Your task to perform on an android device: turn off airplane mode Image 0: 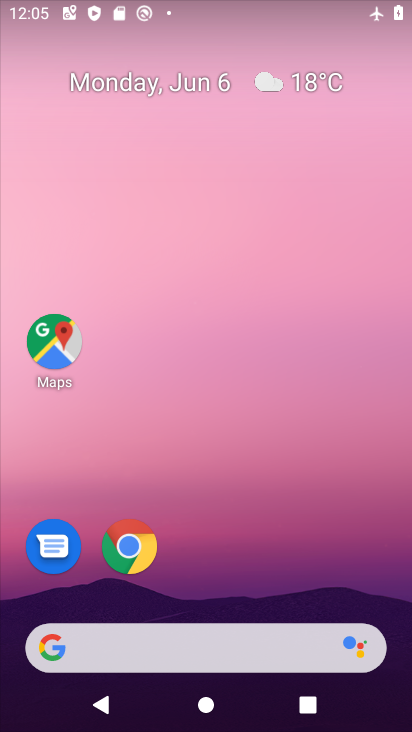
Step 0: drag from (288, 27) to (244, 391)
Your task to perform on an android device: turn off airplane mode Image 1: 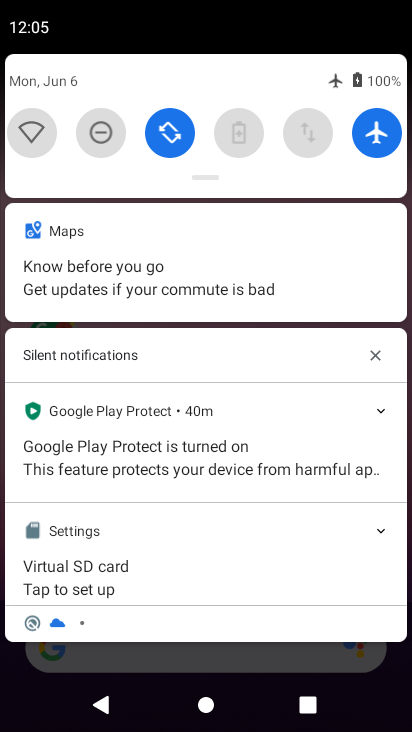
Step 1: task complete